Your task to perform on an android device: Go to accessibility settings Image 0: 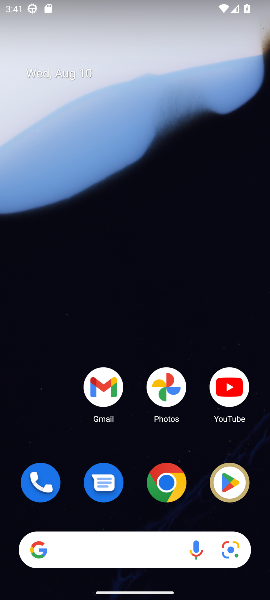
Step 0: drag from (145, 509) to (181, 77)
Your task to perform on an android device: Go to accessibility settings Image 1: 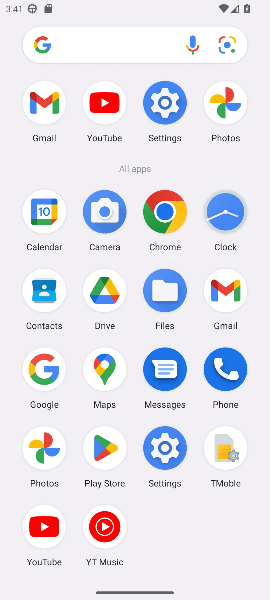
Step 1: click (174, 448)
Your task to perform on an android device: Go to accessibility settings Image 2: 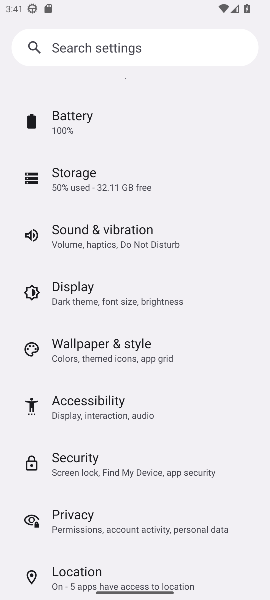
Step 2: drag from (183, 588) to (190, 260)
Your task to perform on an android device: Go to accessibility settings Image 3: 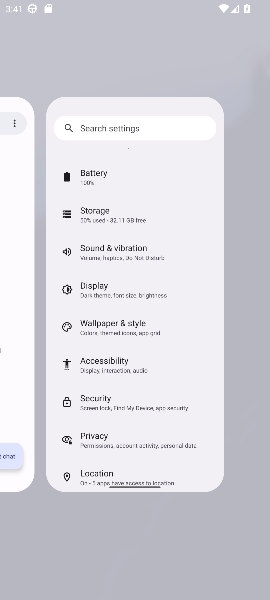
Step 3: click (141, 238)
Your task to perform on an android device: Go to accessibility settings Image 4: 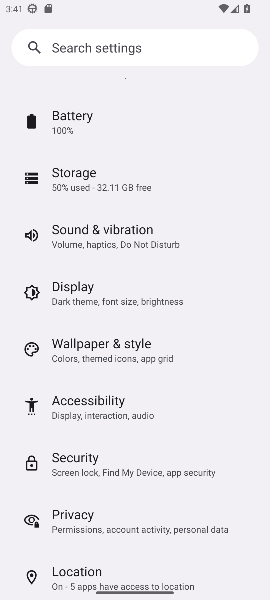
Step 4: click (93, 395)
Your task to perform on an android device: Go to accessibility settings Image 5: 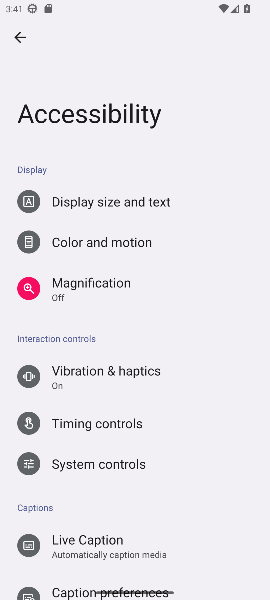
Step 5: task complete